Your task to perform on an android device: check data usage Image 0: 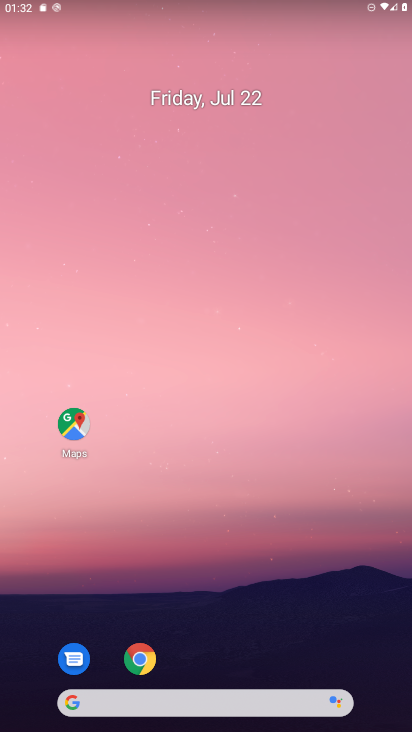
Step 0: drag from (205, 703) to (161, 165)
Your task to perform on an android device: check data usage Image 1: 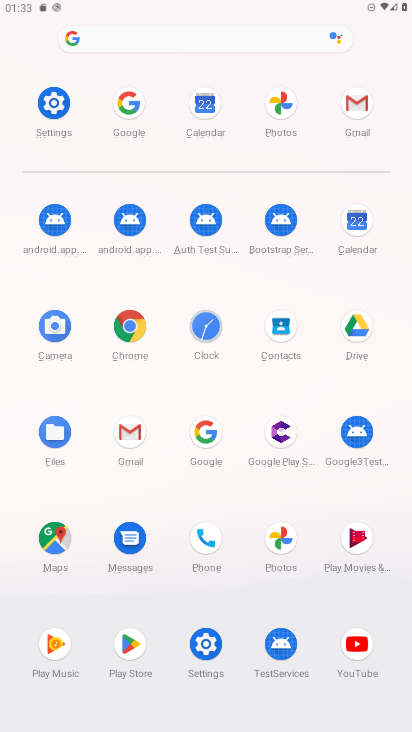
Step 1: click (54, 104)
Your task to perform on an android device: check data usage Image 2: 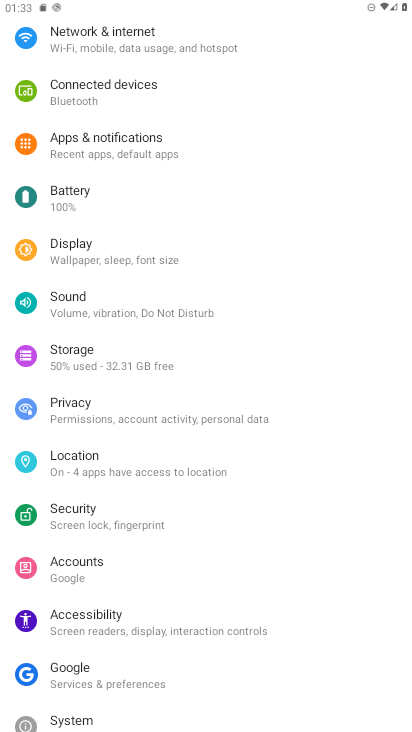
Step 2: drag from (149, 107) to (209, 369)
Your task to perform on an android device: check data usage Image 3: 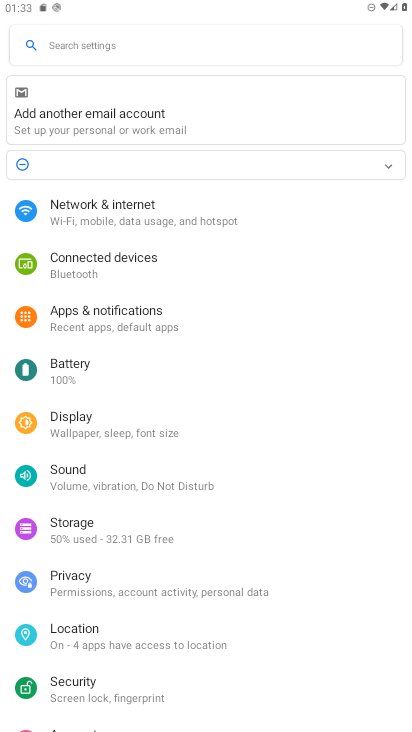
Step 3: click (146, 222)
Your task to perform on an android device: check data usage Image 4: 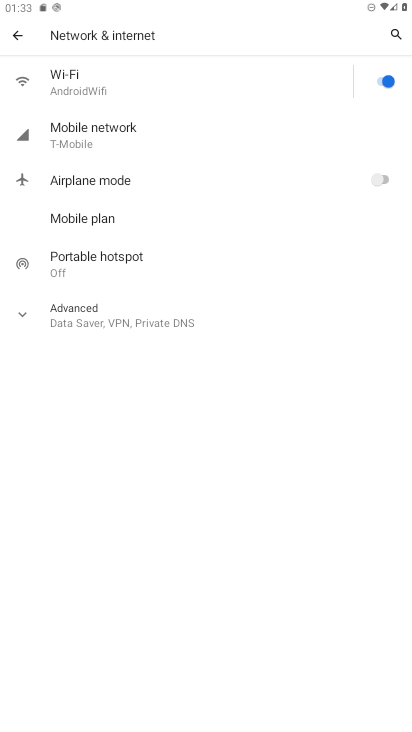
Step 4: click (100, 143)
Your task to perform on an android device: check data usage Image 5: 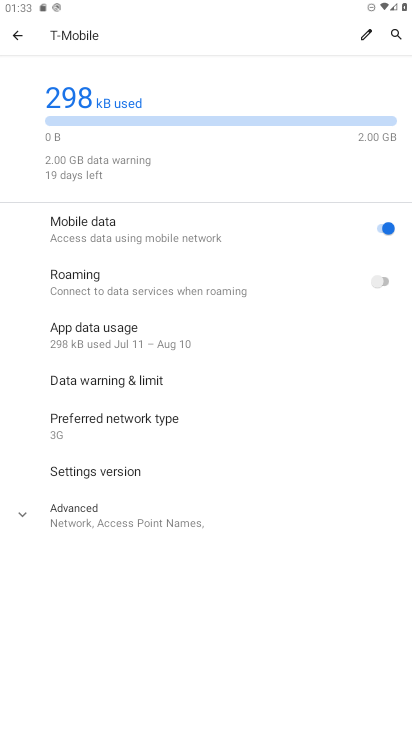
Step 5: task complete